Your task to perform on an android device: search for starred emails in the gmail app Image 0: 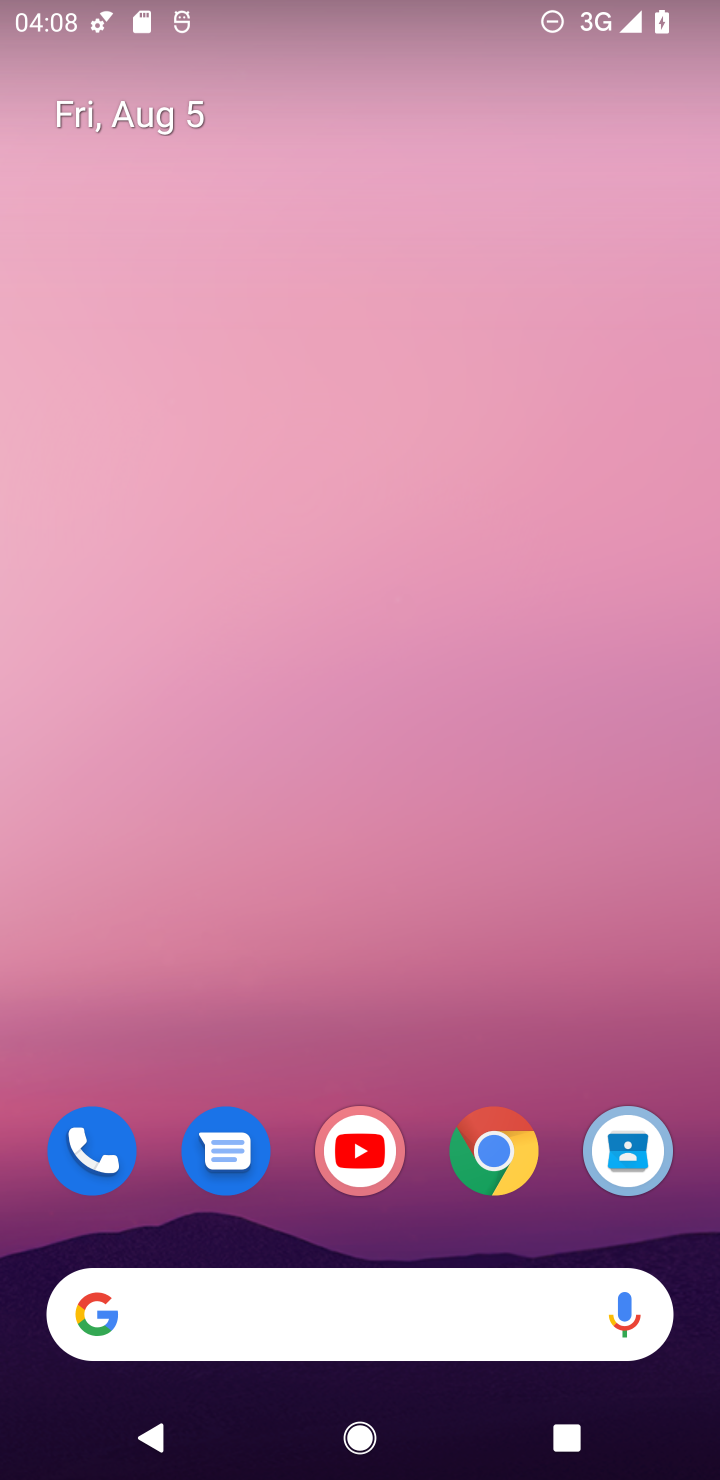
Step 0: drag from (530, 1058) to (413, 271)
Your task to perform on an android device: search for starred emails in the gmail app Image 1: 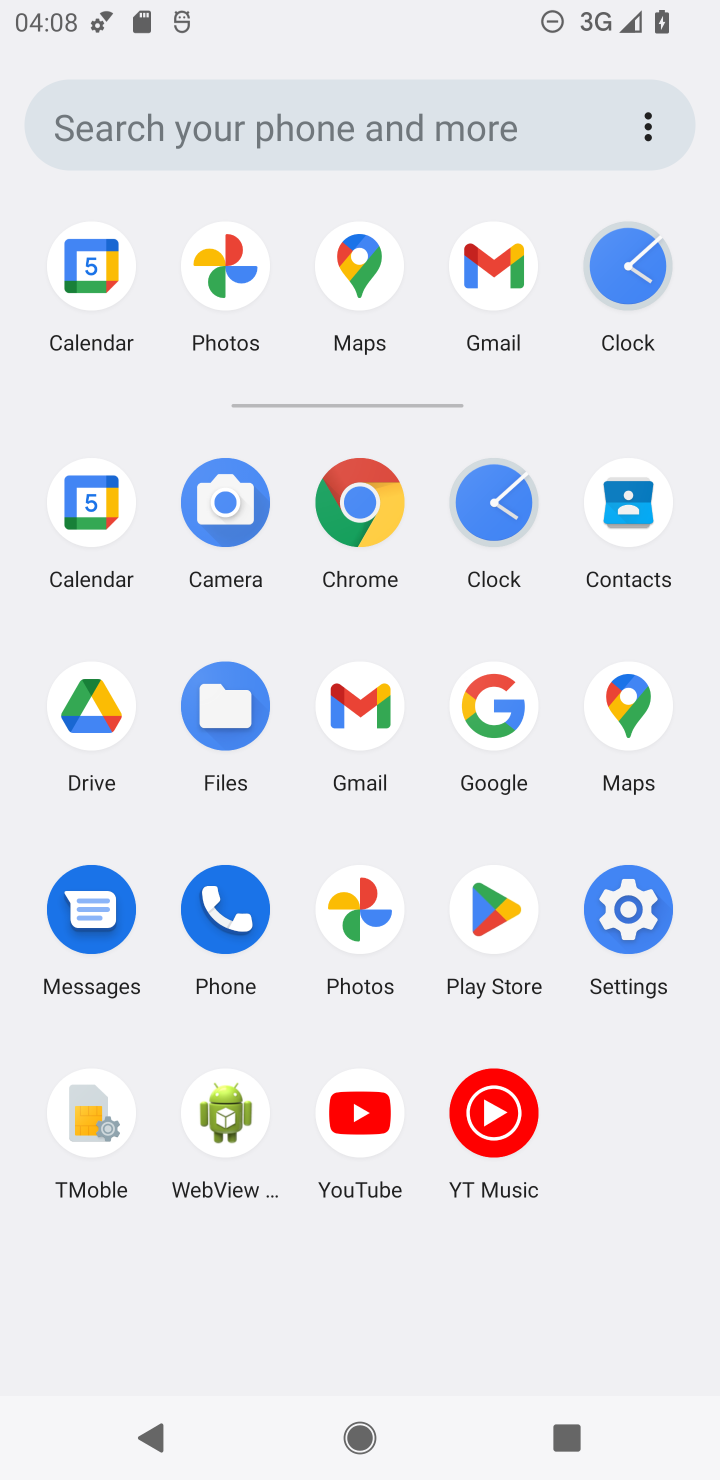
Step 1: click (361, 732)
Your task to perform on an android device: search for starred emails in the gmail app Image 2: 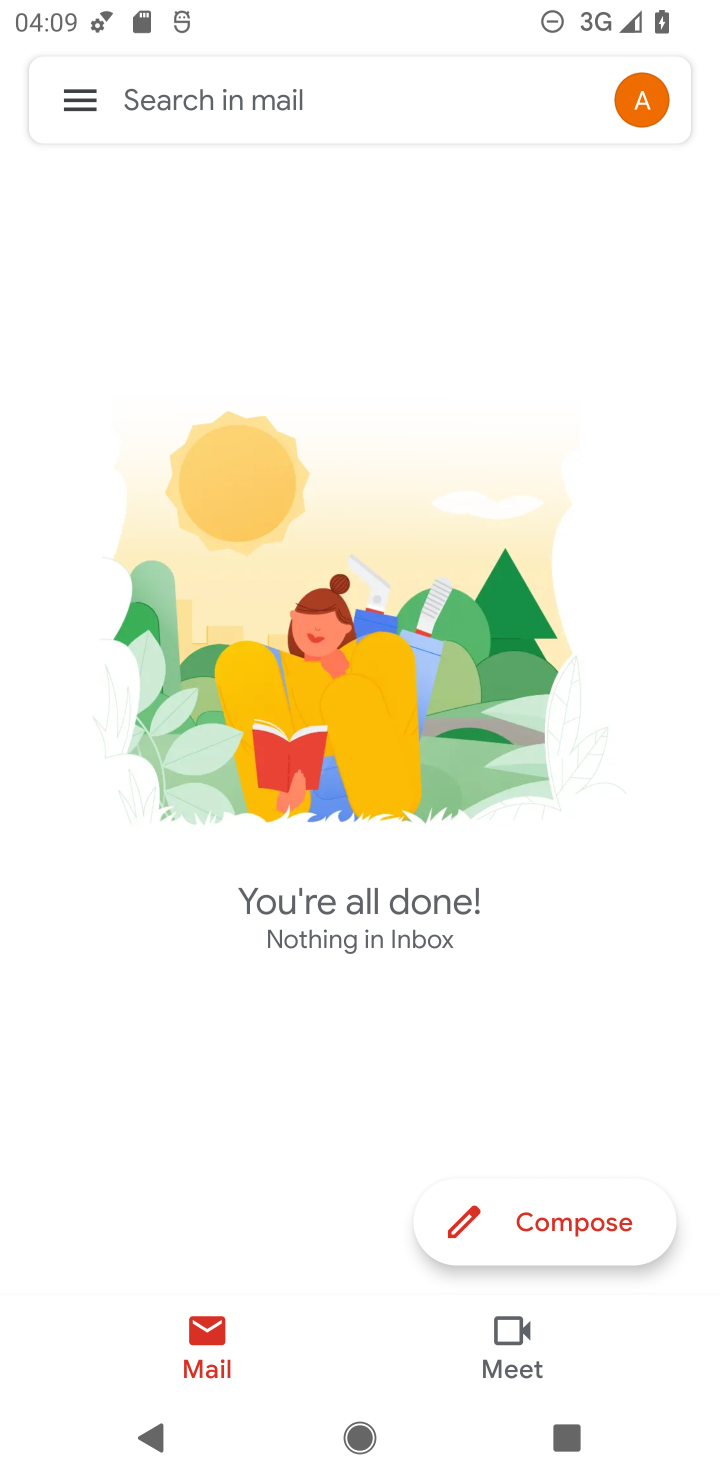
Step 2: click (72, 107)
Your task to perform on an android device: search for starred emails in the gmail app Image 3: 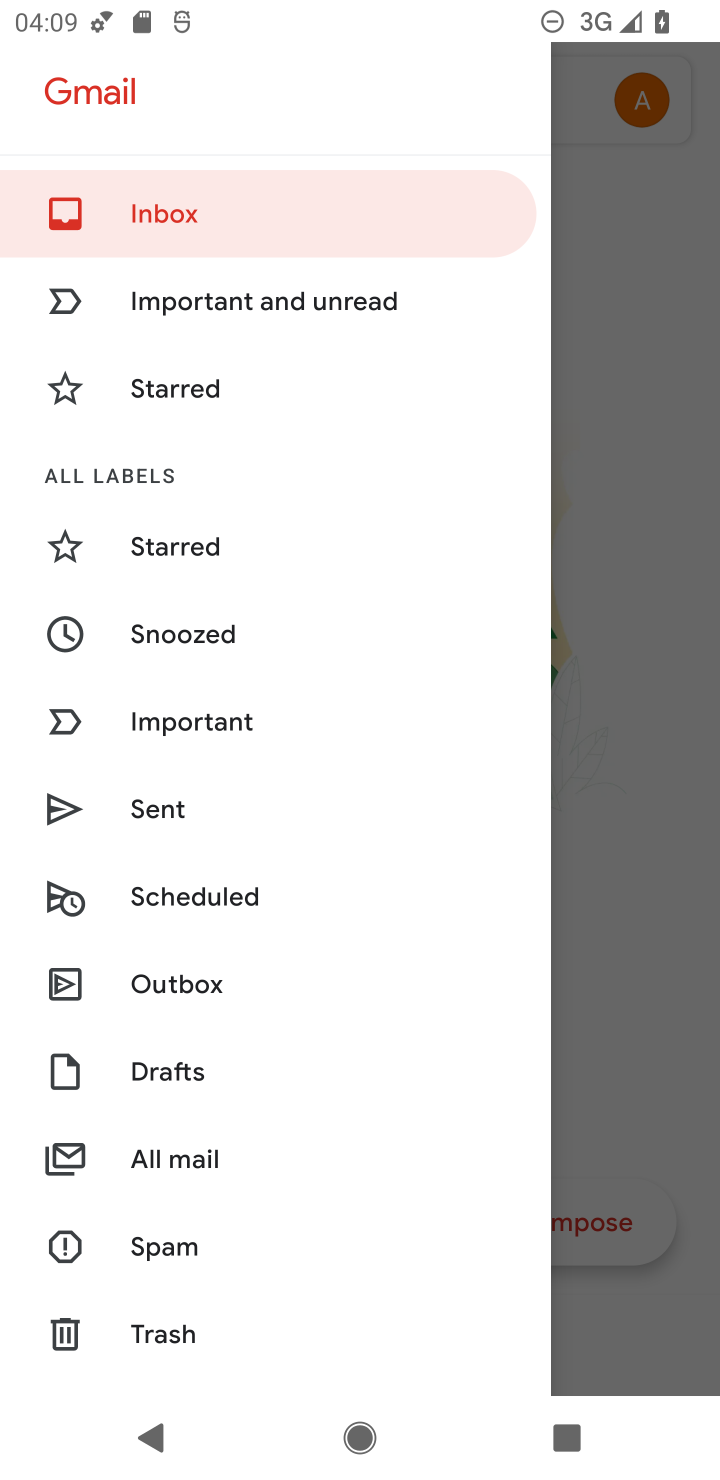
Step 3: click (204, 553)
Your task to perform on an android device: search for starred emails in the gmail app Image 4: 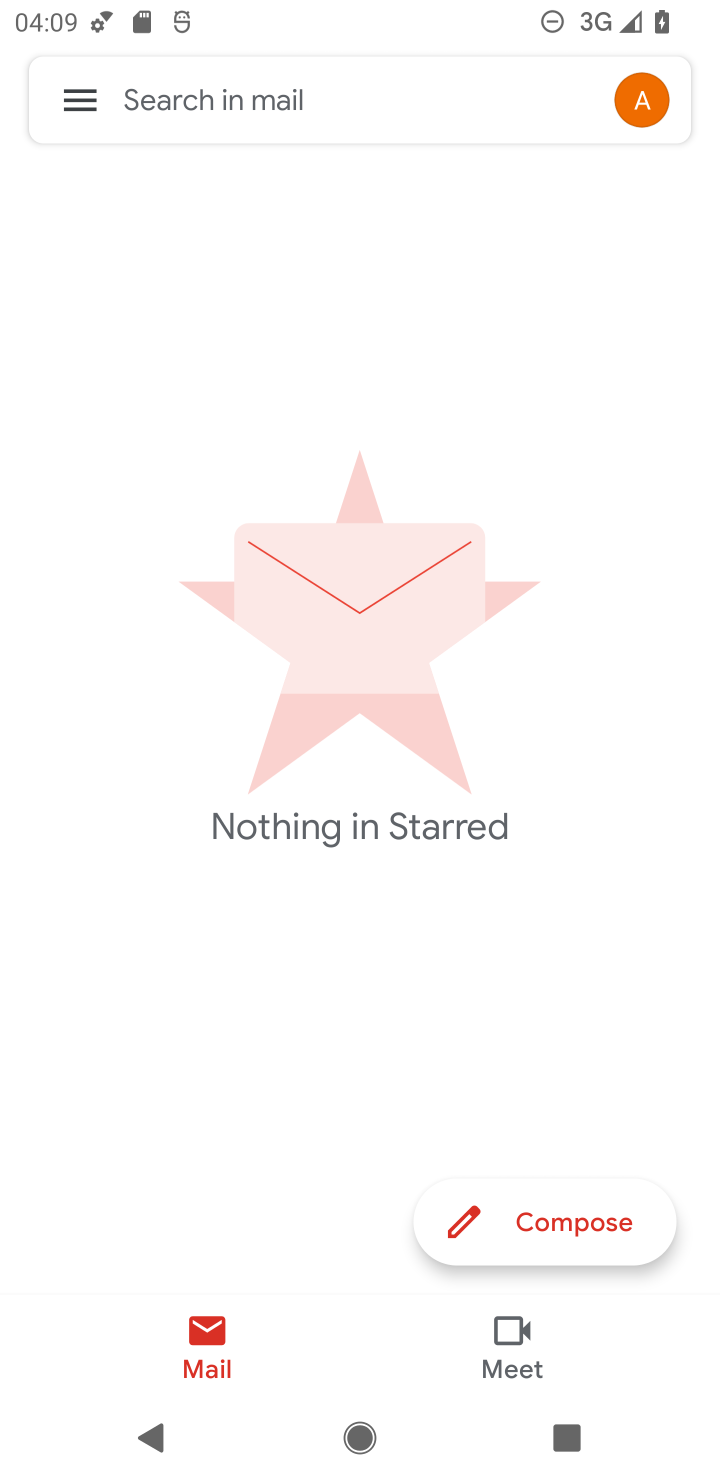
Step 4: task complete